Your task to perform on an android device: Open Youtube and go to the subscriptions tab Image 0: 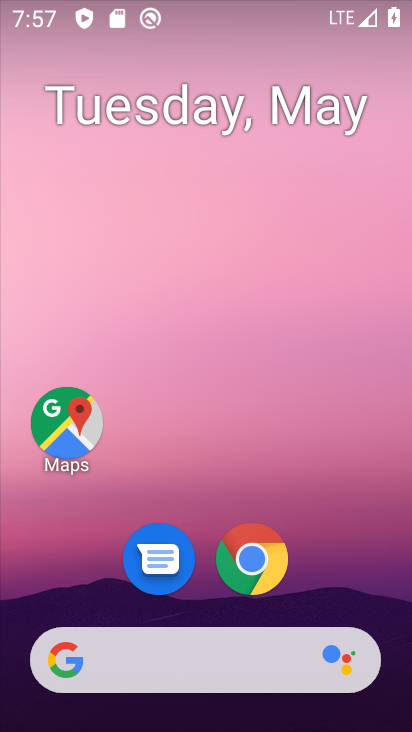
Step 0: drag from (358, 583) to (193, 273)
Your task to perform on an android device: Open Youtube and go to the subscriptions tab Image 1: 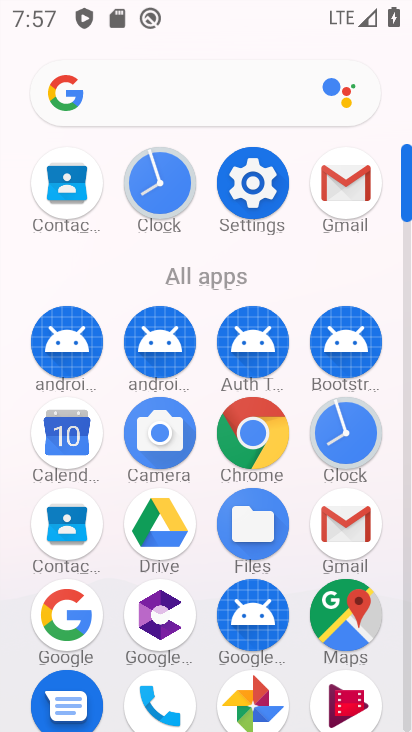
Step 1: click (363, 265)
Your task to perform on an android device: Open Youtube and go to the subscriptions tab Image 2: 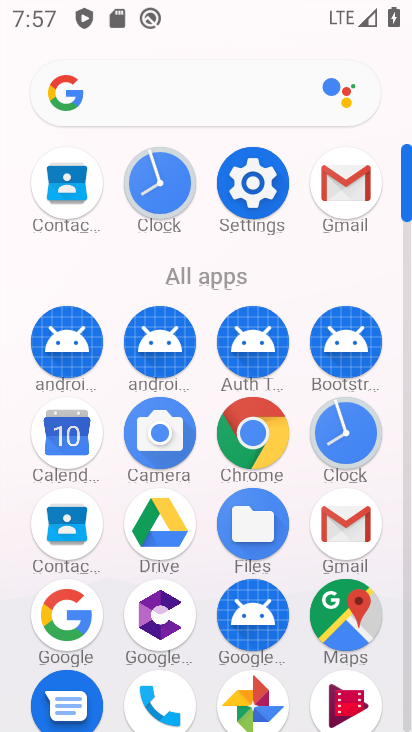
Step 2: drag from (316, 610) to (322, 254)
Your task to perform on an android device: Open Youtube and go to the subscriptions tab Image 3: 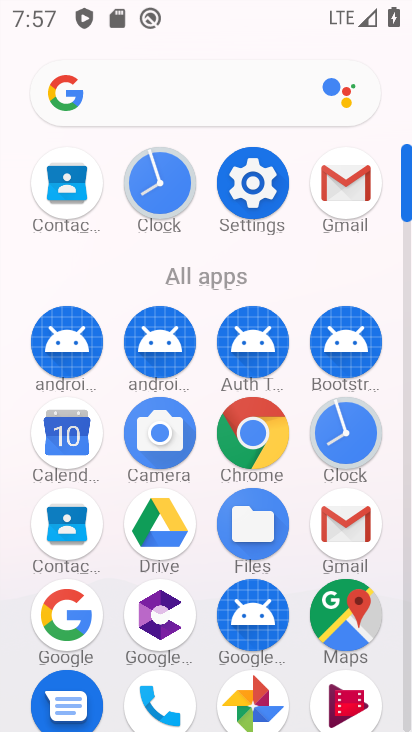
Step 3: drag from (304, 582) to (250, 181)
Your task to perform on an android device: Open Youtube and go to the subscriptions tab Image 4: 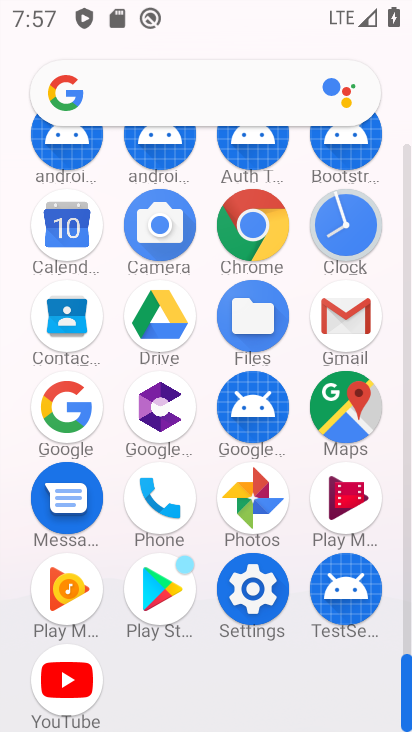
Step 4: click (65, 680)
Your task to perform on an android device: Open Youtube and go to the subscriptions tab Image 5: 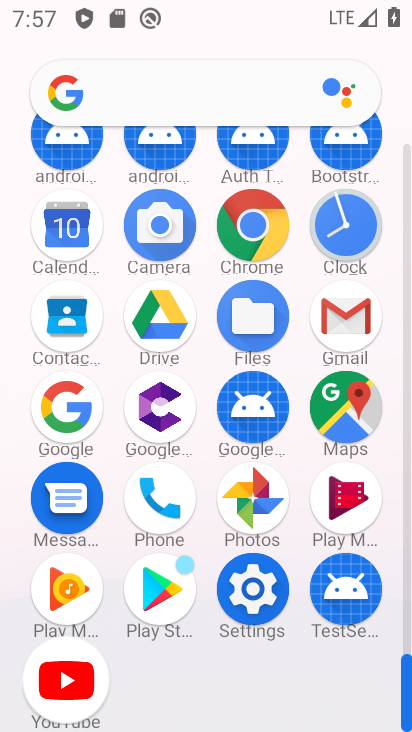
Step 5: click (65, 673)
Your task to perform on an android device: Open Youtube and go to the subscriptions tab Image 6: 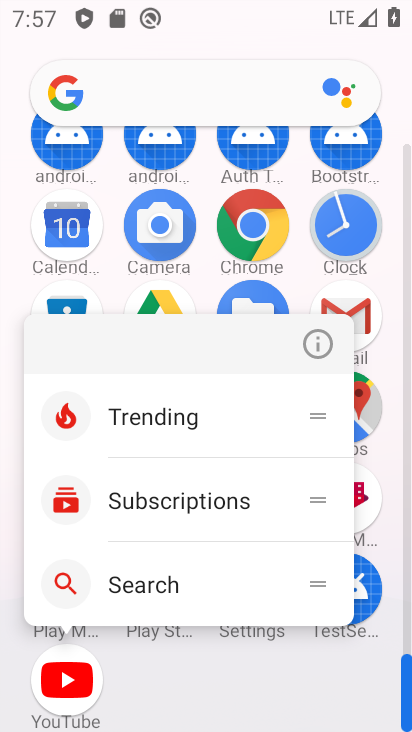
Step 6: click (67, 671)
Your task to perform on an android device: Open Youtube and go to the subscriptions tab Image 7: 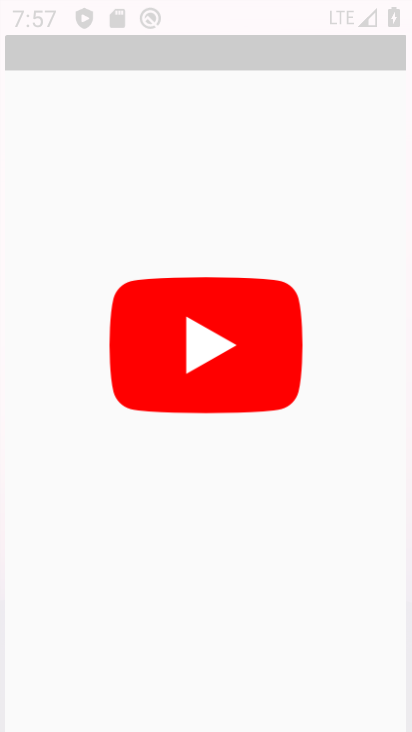
Step 7: click (69, 669)
Your task to perform on an android device: Open Youtube and go to the subscriptions tab Image 8: 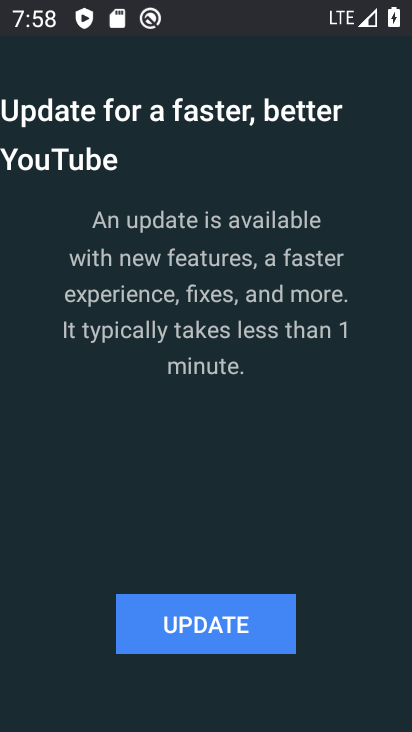
Step 8: click (225, 613)
Your task to perform on an android device: Open Youtube and go to the subscriptions tab Image 9: 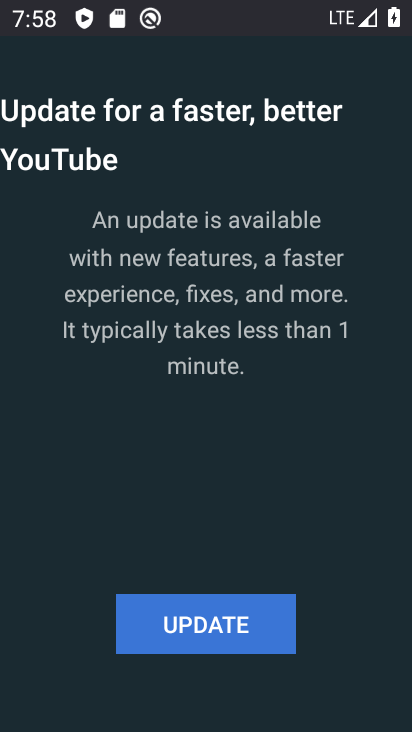
Step 9: click (221, 614)
Your task to perform on an android device: Open Youtube and go to the subscriptions tab Image 10: 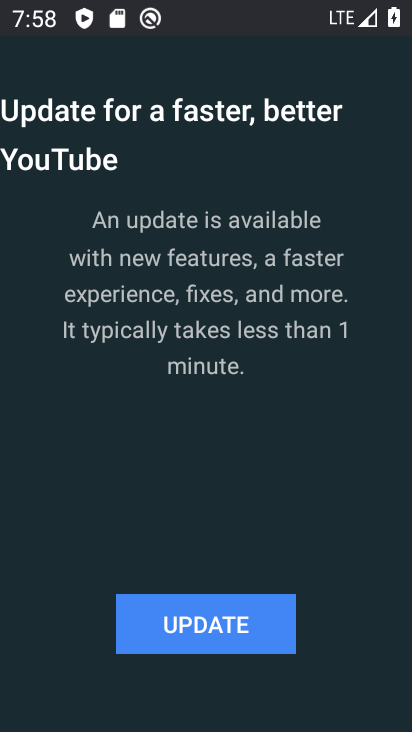
Step 10: click (221, 614)
Your task to perform on an android device: Open Youtube and go to the subscriptions tab Image 11: 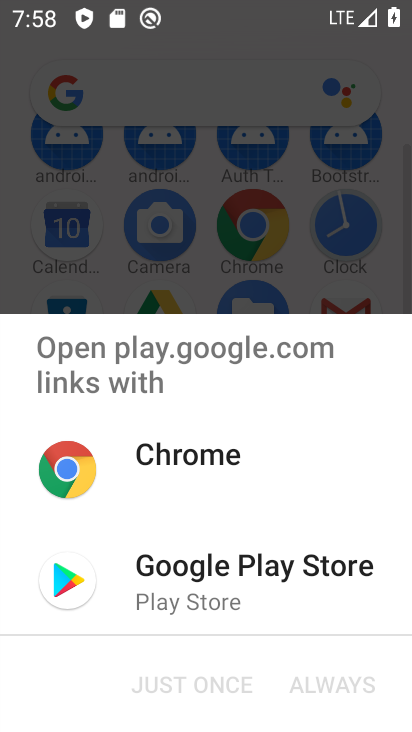
Step 11: click (198, 593)
Your task to perform on an android device: Open Youtube and go to the subscriptions tab Image 12: 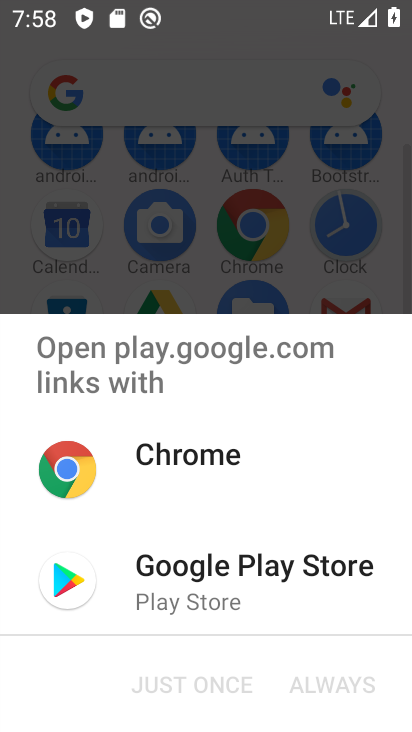
Step 12: click (198, 593)
Your task to perform on an android device: Open Youtube and go to the subscriptions tab Image 13: 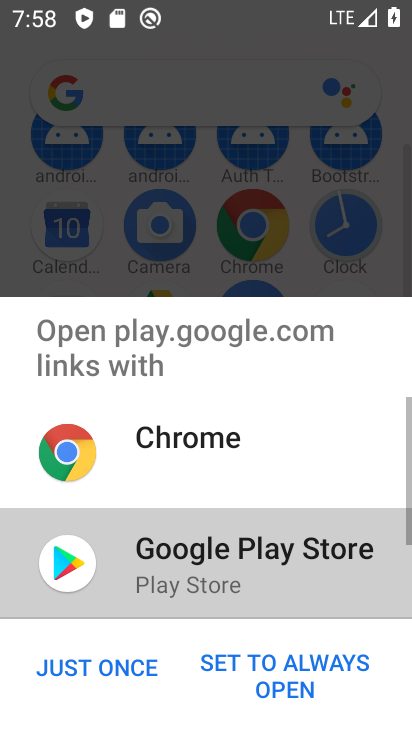
Step 13: click (192, 589)
Your task to perform on an android device: Open Youtube and go to the subscriptions tab Image 14: 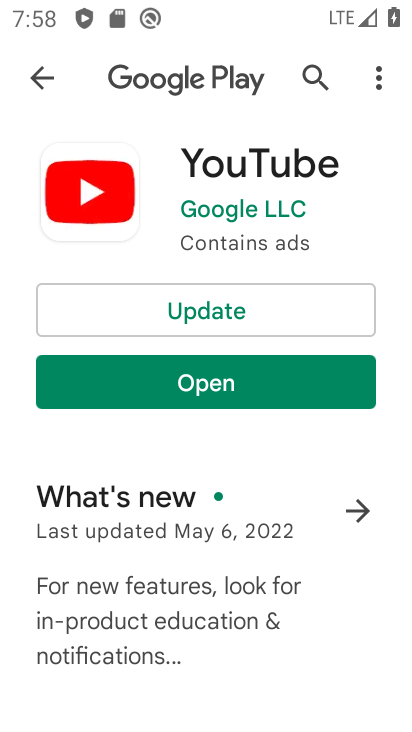
Step 14: click (216, 313)
Your task to perform on an android device: Open Youtube and go to the subscriptions tab Image 15: 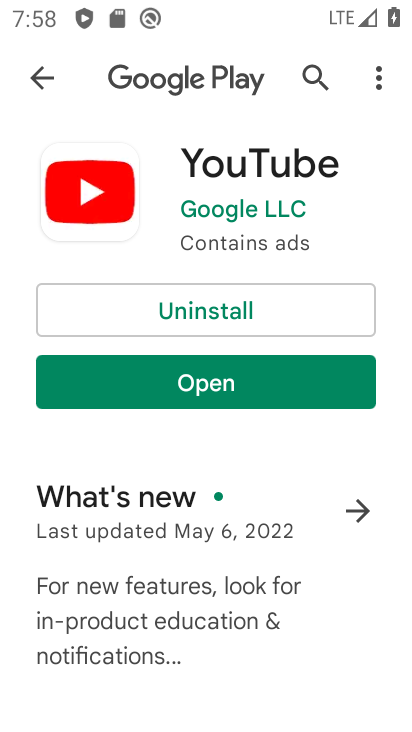
Step 15: click (202, 359)
Your task to perform on an android device: Open Youtube and go to the subscriptions tab Image 16: 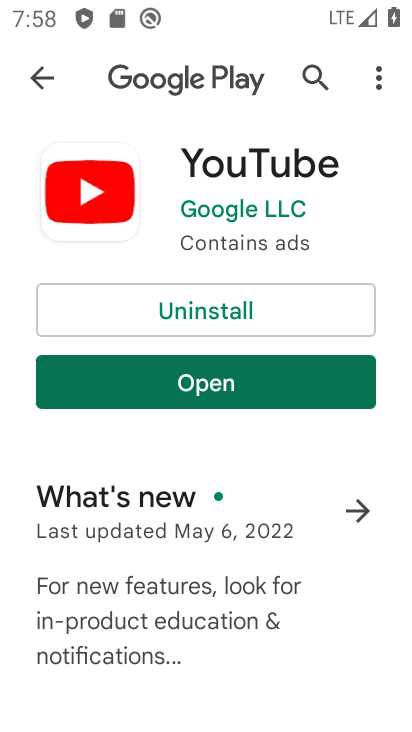
Step 16: click (211, 370)
Your task to perform on an android device: Open Youtube and go to the subscriptions tab Image 17: 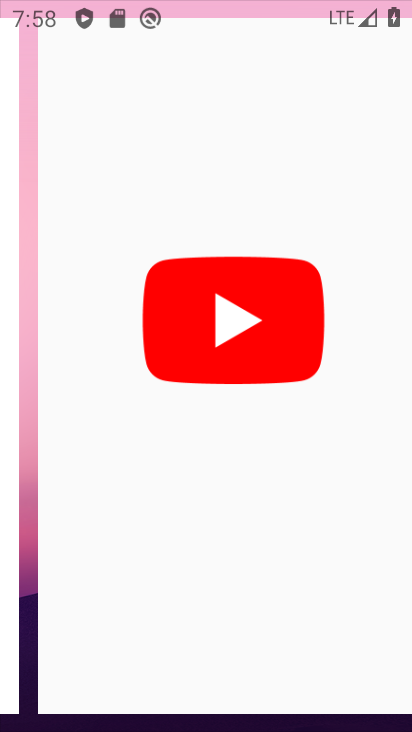
Step 17: click (210, 363)
Your task to perform on an android device: Open Youtube and go to the subscriptions tab Image 18: 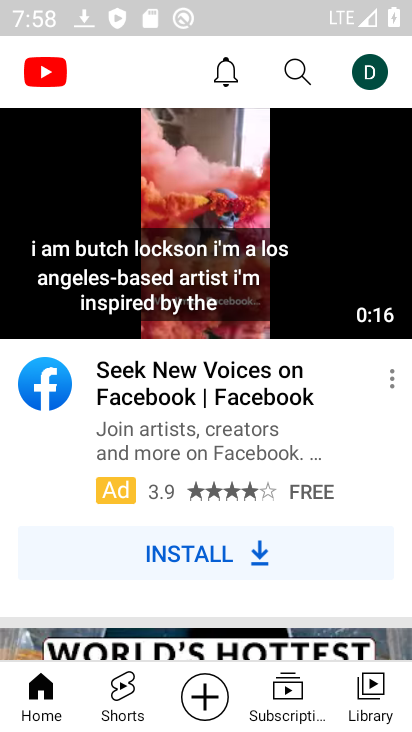
Step 18: drag from (238, 342) to (240, 106)
Your task to perform on an android device: Open Youtube and go to the subscriptions tab Image 19: 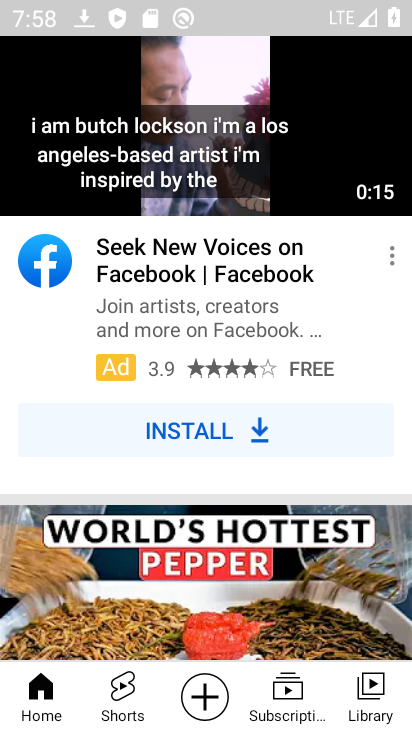
Step 19: drag from (231, 474) to (179, 172)
Your task to perform on an android device: Open Youtube and go to the subscriptions tab Image 20: 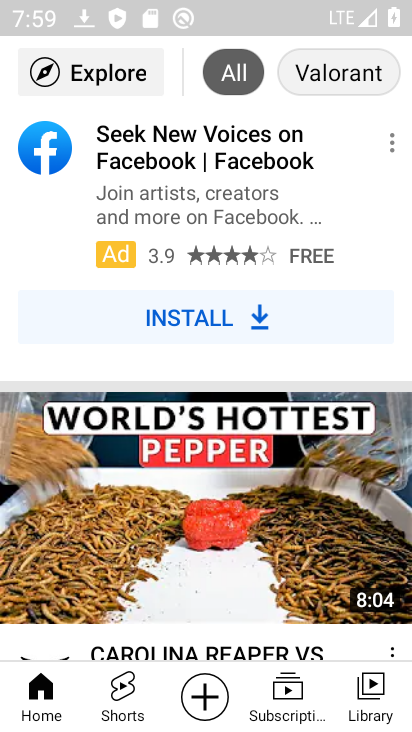
Step 20: click (289, 697)
Your task to perform on an android device: Open Youtube and go to the subscriptions tab Image 21: 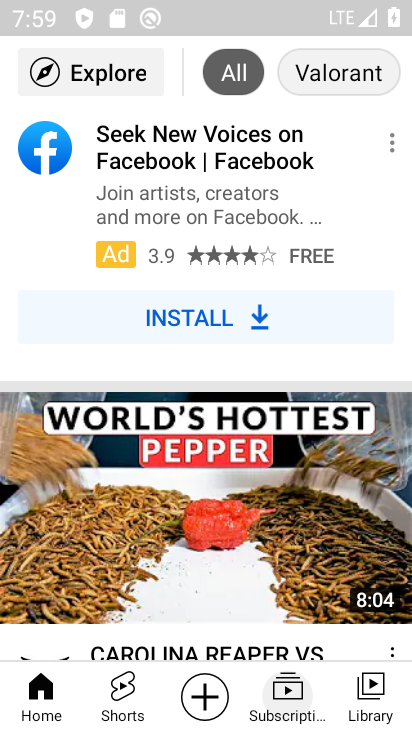
Step 21: click (286, 694)
Your task to perform on an android device: Open Youtube and go to the subscriptions tab Image 22: 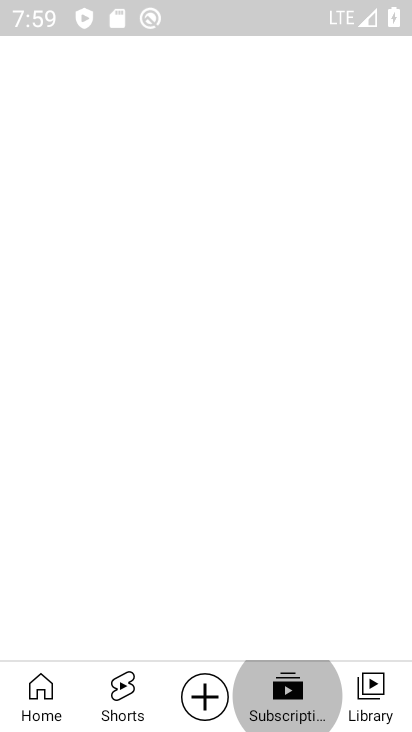
Step 22: click (289, 689)
Your task to perform on an android device: Open Youtube and go to the subscriptions tab Image 23: 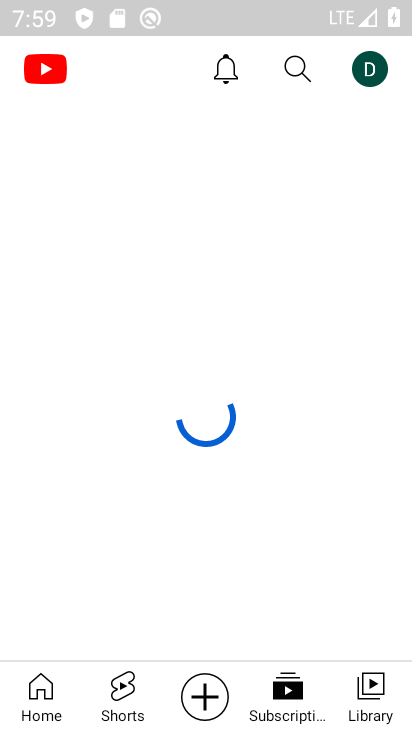
Step 23: click (290, 689)
Your task to perform on an android device: Open Youtube and go to the subscriptions tab Image 24: 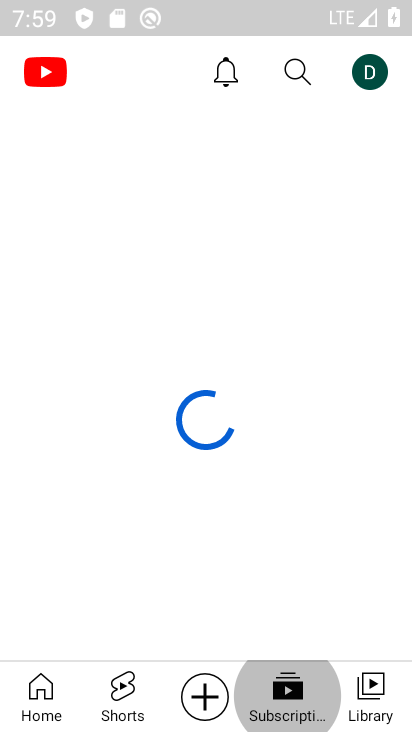
Step 24: click (292, 688)
Your task to perform on an android device: Open Youtube and go to the subscriptions tab Image 25: 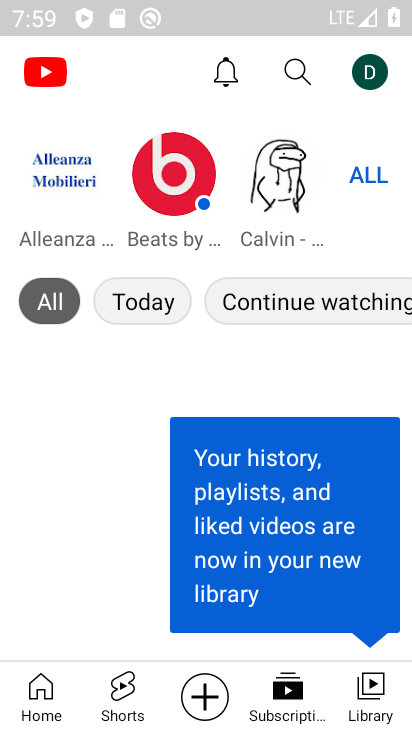
Step 25: click (290, 682)
Your task to perform on an android device: Open Youtube and go to the subscriptions tab Image 26: 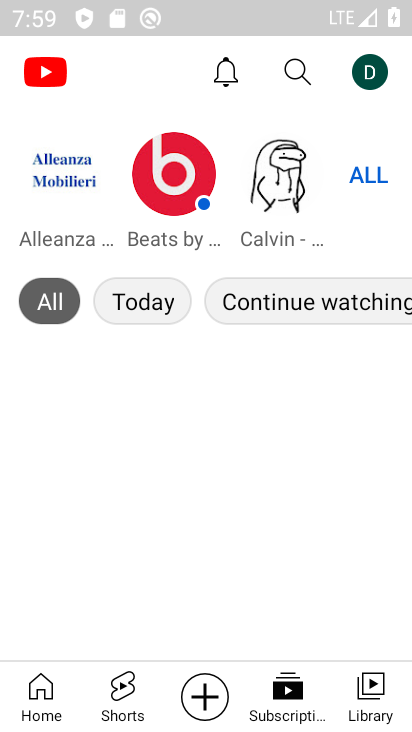
Step 26: click (322, 284)
Your task to perform on an android device: Open Youtube and go to the subscriptions tab Image 27: 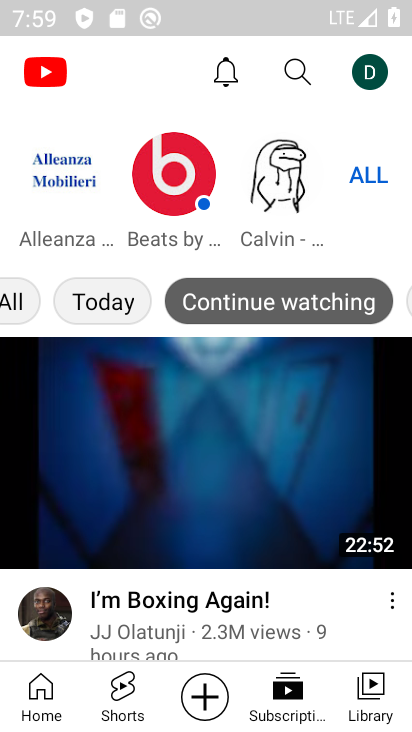
Step 27: task complete